Your task to perform on an android device: set the timer Image 0: 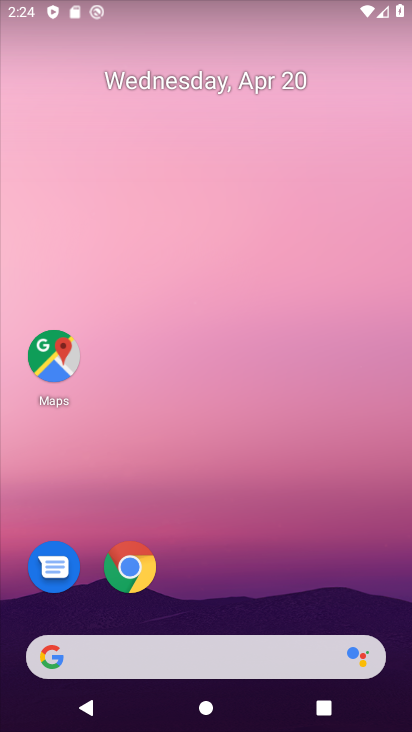
Step 0: drag from (172, 639) to (166, 181)
Your task to perform on an android device: set the timer Image 1: 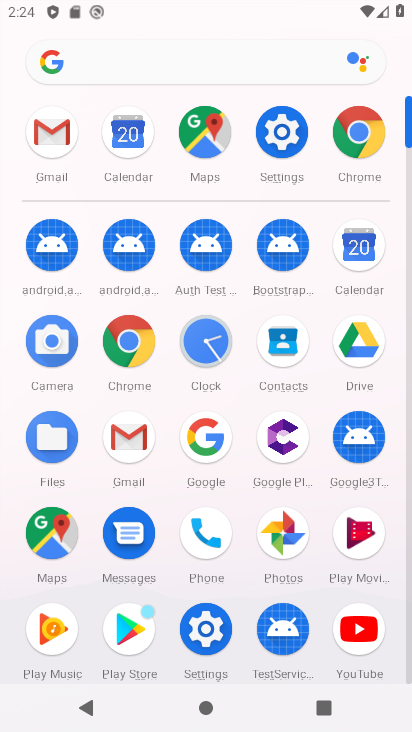
Step 1: click (216, 357)
Your task to perform on an android device: set the timer Image 2: 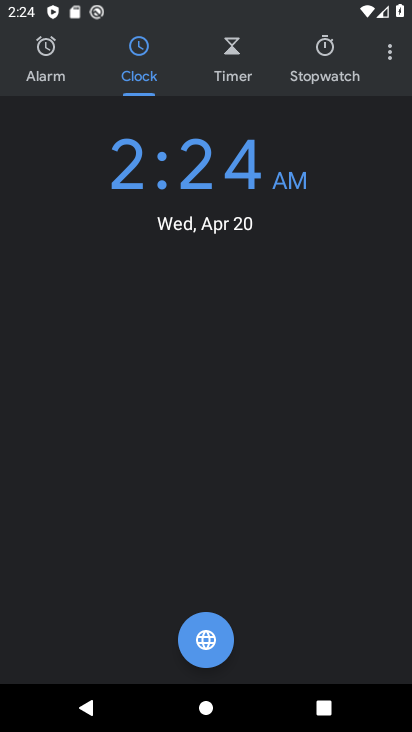
Step 2: click (248, 73)
Your task to perform on an android device: set the timer Image 3: 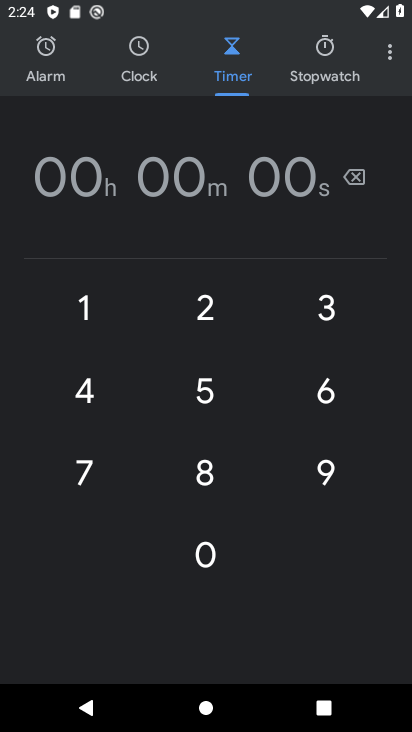
Step 3: click (207, 311)
Your task to perform on an android device: set the timer Image 4: 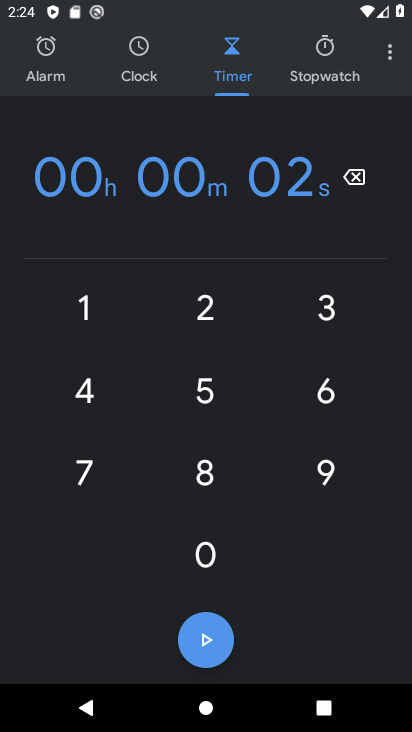
Step 4: click (203, 500)
Your task to perform on an android device: set the timer Image 5: 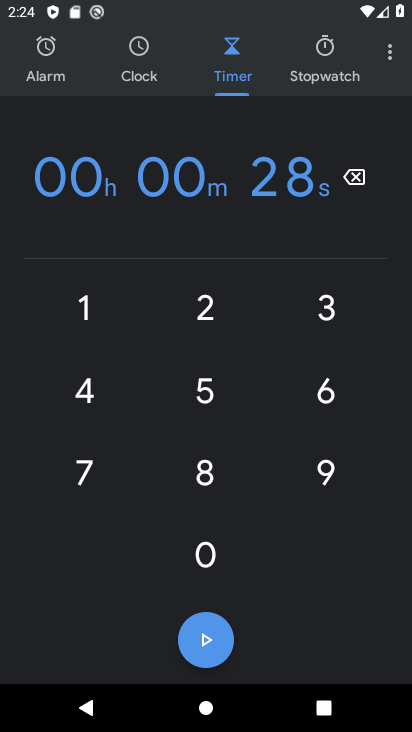
Step 5: click (311, 461)
Your task to perform on an android device: set the timer Image 6: 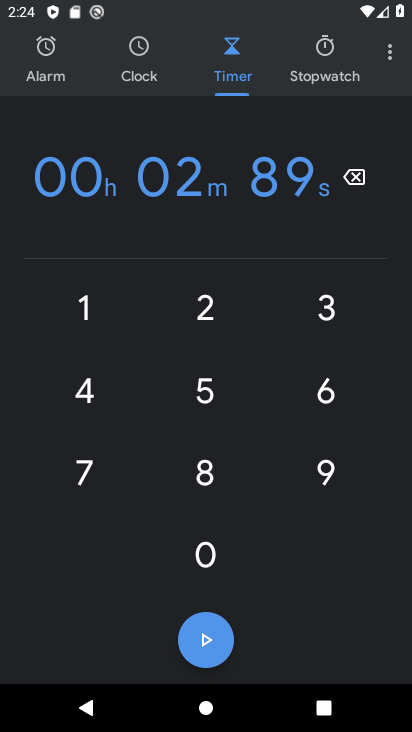
Step 6: click (205, 656)
Your task to perform on an android device: set the timer Image 7: 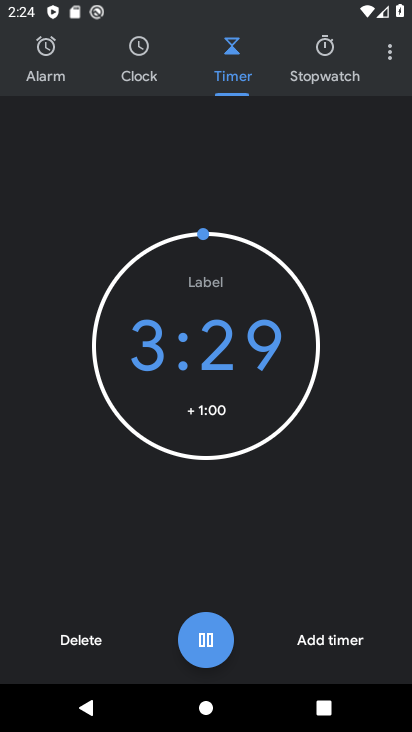
Step 7: task complete